Your task to perform on an android device: turn off smart reply in the gmail app Image 0: 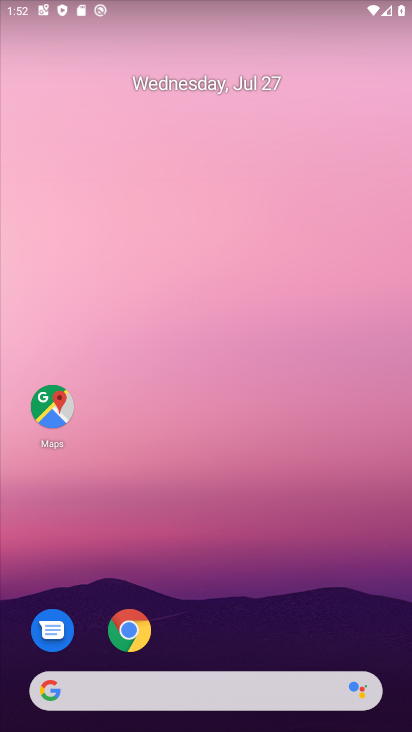
Step 0: drag from (386, 632) to (324, 140)
Your task to perform on an android device: turn off smart reply in the gmail app Image 1: 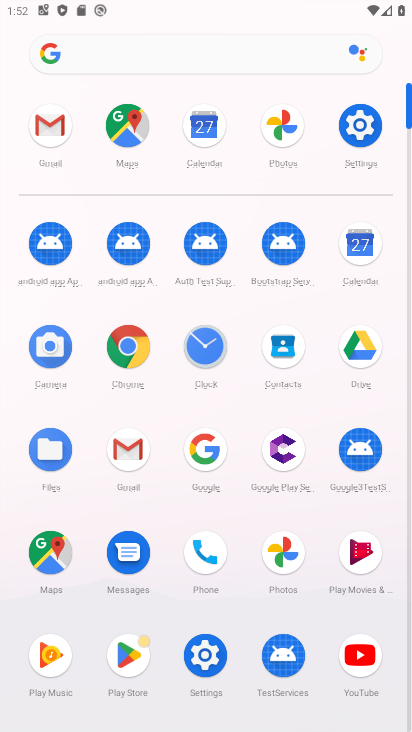
Step 1: click (127, 448)
Your task to perform on an android device: turn off smart reply in the gmail app Image 2: 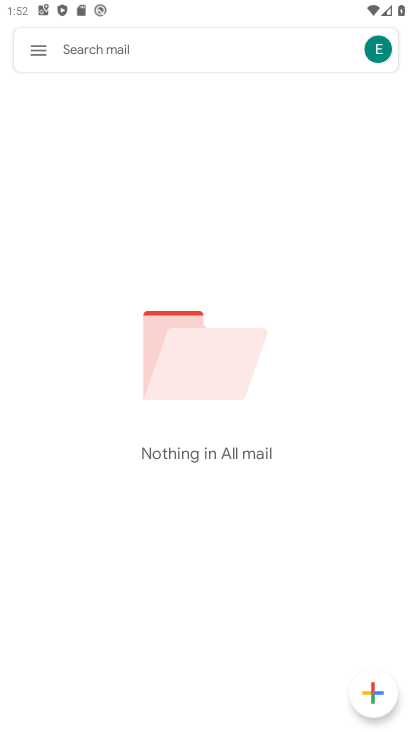
Step 2: click (36, 51)
Your task to perform on an android device: turn off smart reply in the gmail app Image 3: 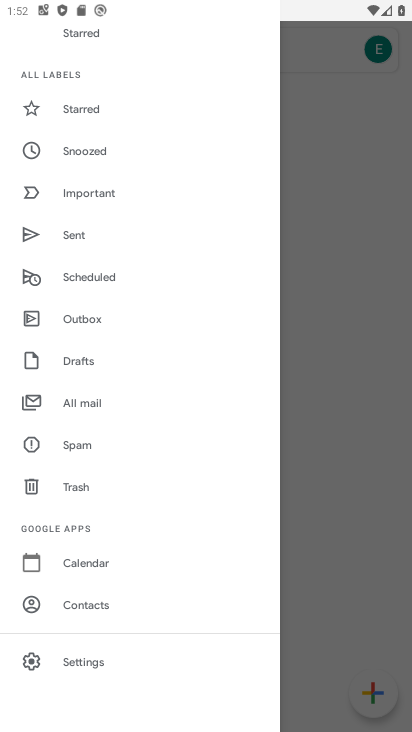
Step 3: click (88, 656)
Your task to perform on an android device: turn off smart reply in the gmail app Image 4: 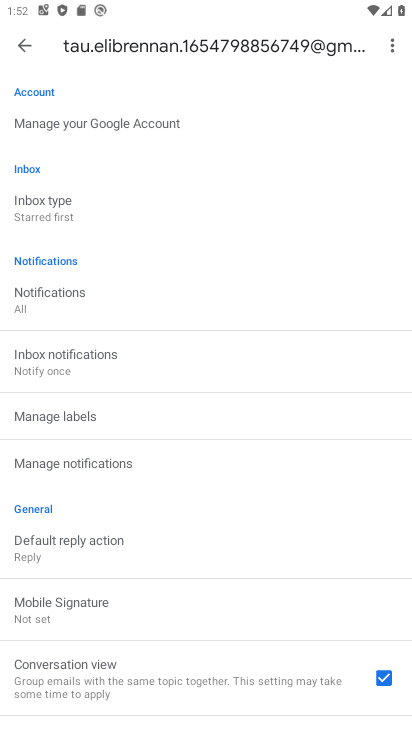
Step 4: drag from (182, 641) to (245, 159)
Your task to perform on an android device: turn off smart reply in the gmail app Image 5: 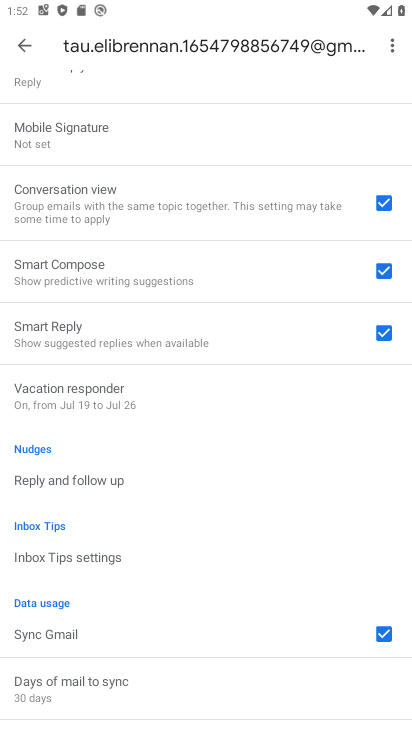
Step 5: click (384, 331)
Your task to perform on an android device: turn off smart reply in the gmail app Image 6: 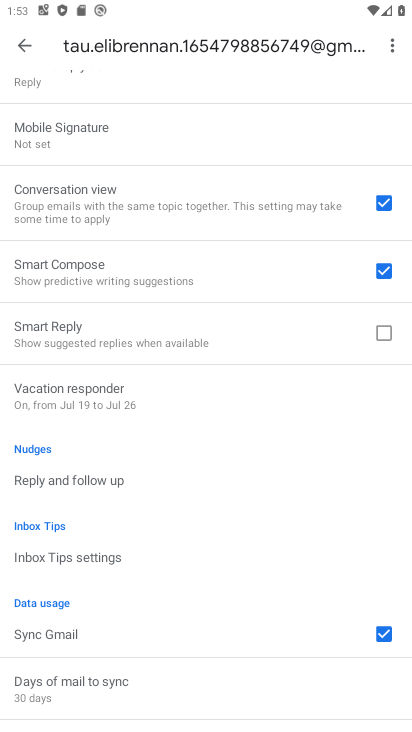
Step 6: task complete